Your task to perform on an android device: open the mobile data screen to see how much data has been used Image 0: 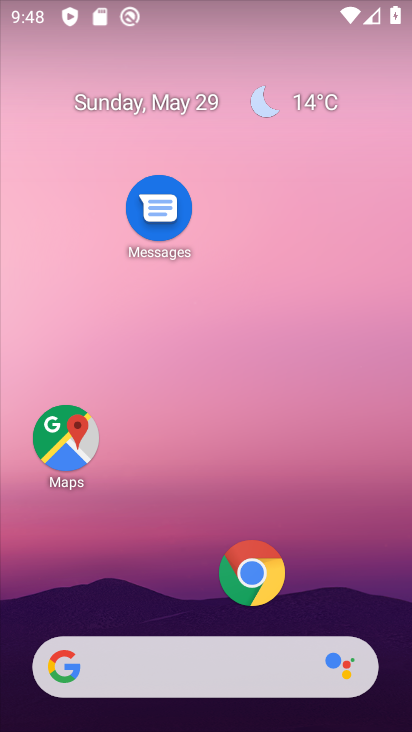
Step 0: drag from (193, 15) to (136, 689)
Your task to perform on an android device: open the mobile data screen to see how much data has been used Image 1: 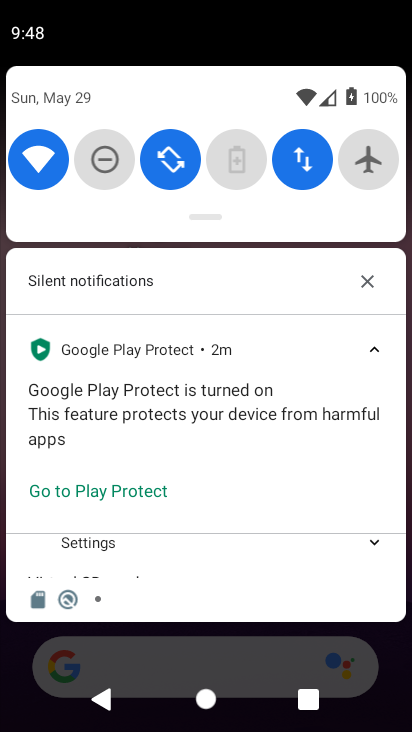
Step 1: click (306, 159)
Your task to perform on an android device: open the mobile data screen to see how much data has been used Image 2: 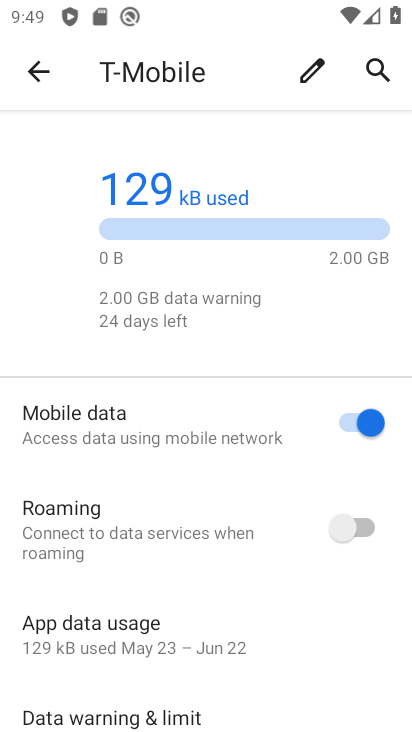
Step 2: task complete